Your task to perform on an android device: allow cookies in the chrome app Image 0: 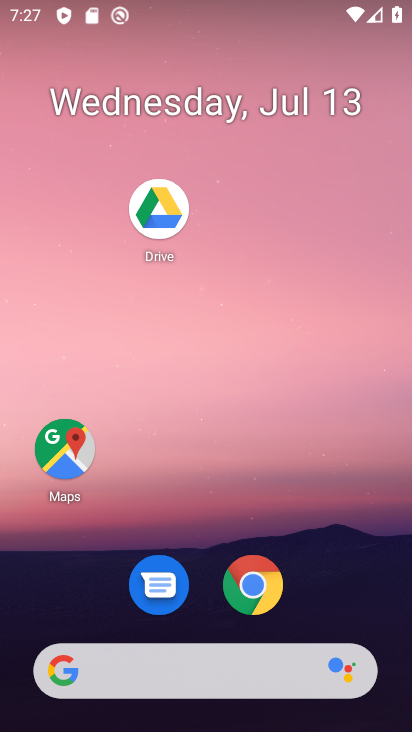
Step 0: click (263, 592)
Your task to perform on an android device: allow cookies in the chrome app Image 1: 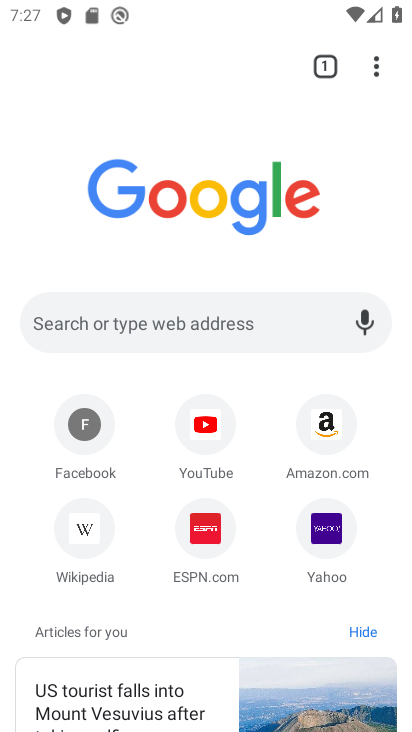
Step 1: drag from (373, 67) to (148, 557)
Your task to perform on an android device: allow cookies in the chrome app Image 2: 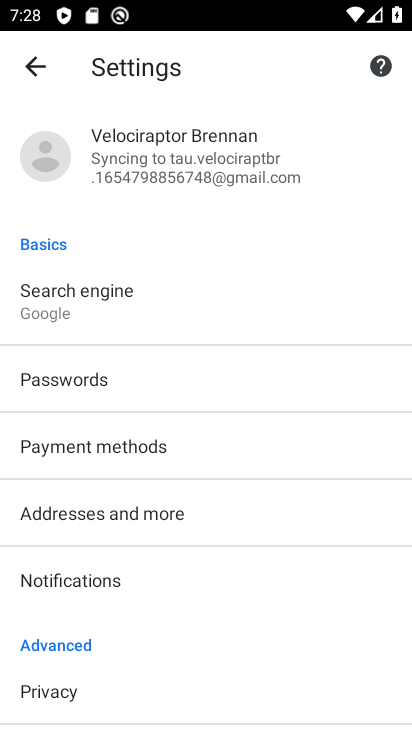
Step 2: drag from (192, 415) to (264, 176)
Your task to perform on an android device: allow cookies in the chrome app Image 3: 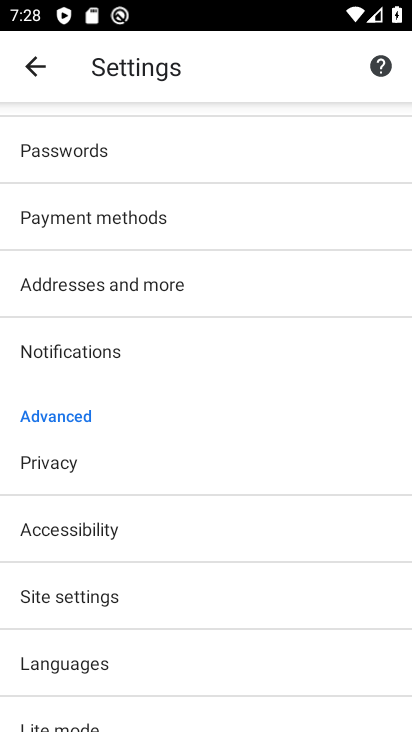
Step 3: click (79, 597)
Your task to perform on an android device: allow cookies in the chrome app Image 4: 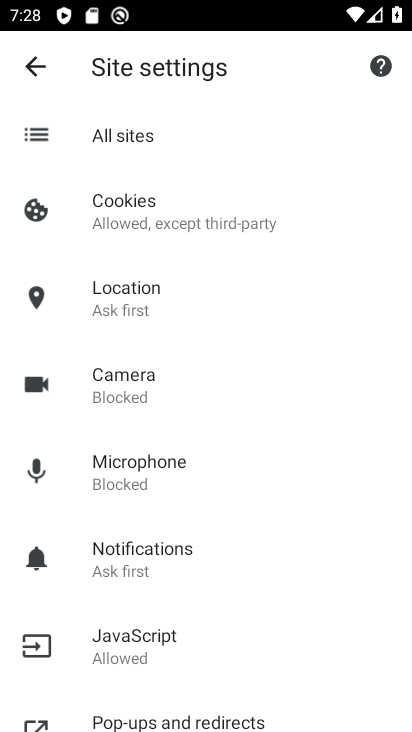
Step 4: click (138, 215)
Your task to perform on an android device: allow cookies in the chrome app Image 5: 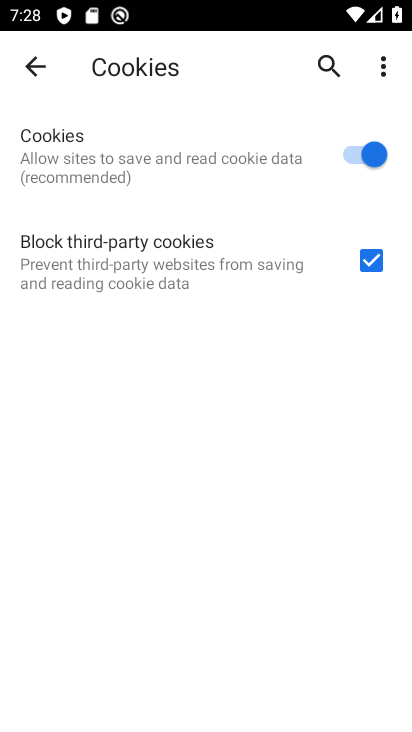
Step 5: task complete